Your task to perform on an android device: toggle notifications settings in the gmail app Image 0: 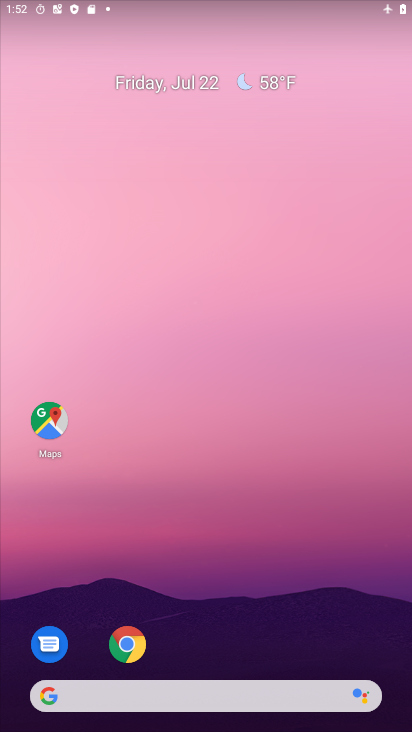
Step 0: drag from (213, 650) to (243, 434)
Your task to perform on an android device: toggle notifications settings in the gmail app Image 1: 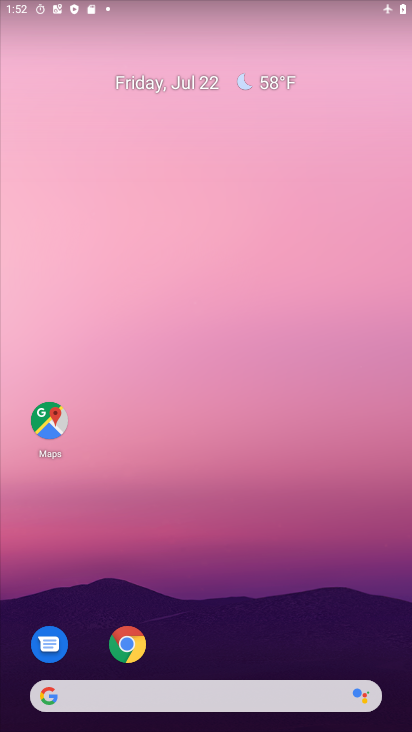
Step 1: drag from (255, 648) to (279, 291)
Your task to perform on an android device: toggle notifications settings in the gmail app Image 2: 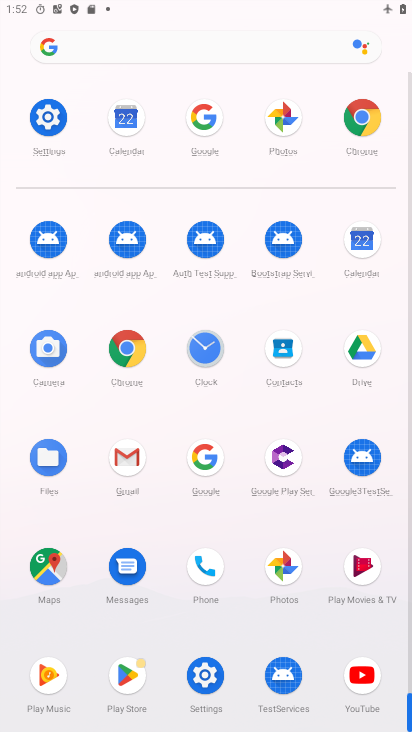
Step 2: click (138, 459)
Your task to perform on an android device: toggle notifications settings in the gmail app Image 3: 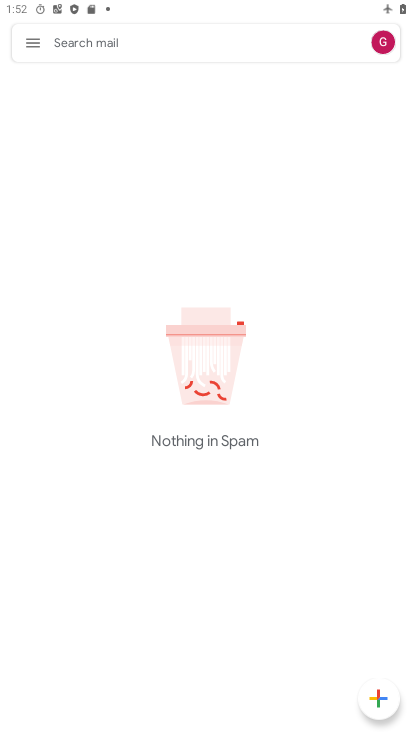
Step 3: click (24, 41)
Your task to perform on an android device: toggle notifications settings in the gmail app Image 4: 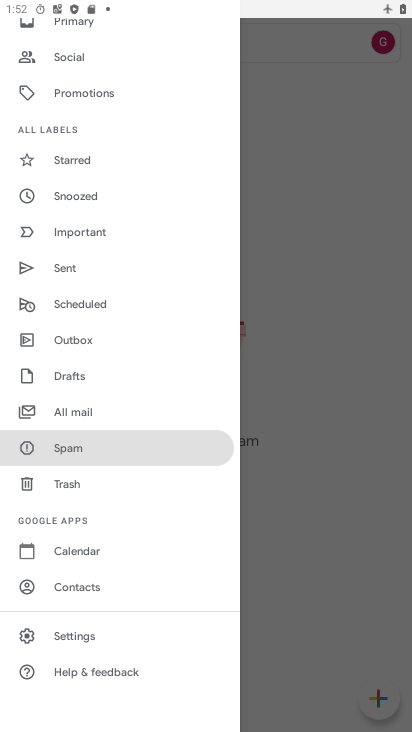
Step 4: click (93, 641)
Your task to perform on an android device: toggle notifications settings in the gmail app Image 5: 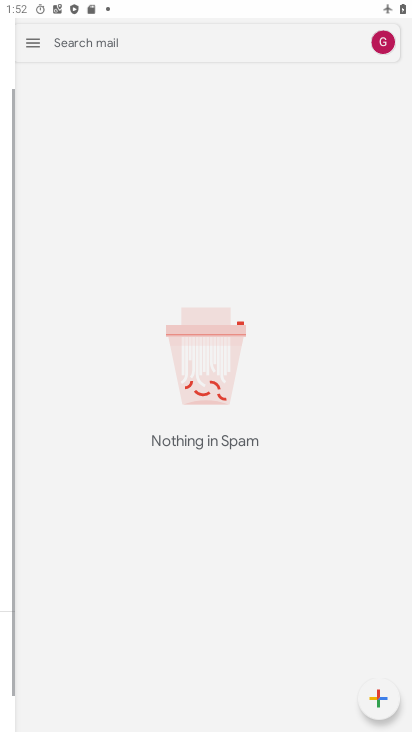
Step 5: drag from (87, 640) to (163, 92)
Your task to perform on an android device: toggle notifications settings in the gmail app Image 6: 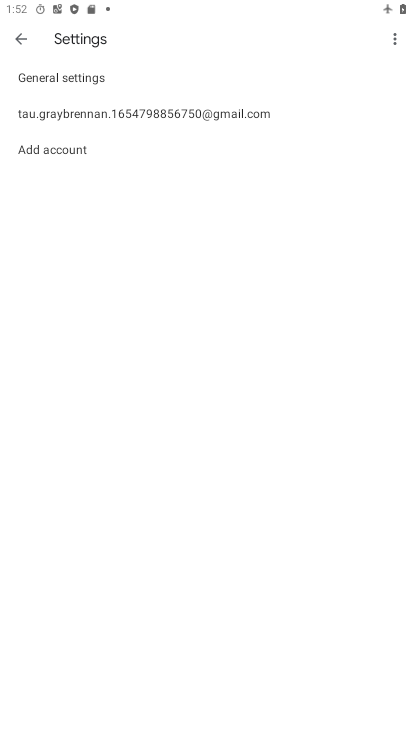
Step 6: drag from (117, 637) to (156, 320)
Your task to perform on an android device: toggle notifications settings in the gmail app Image 7: 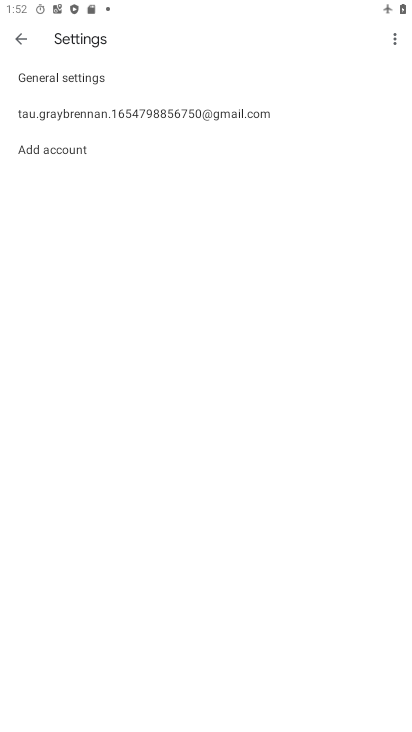
Step 7: click (107, 122)
Your task to perform on an android device: toggle notifications settings in the gmail app Image 8: 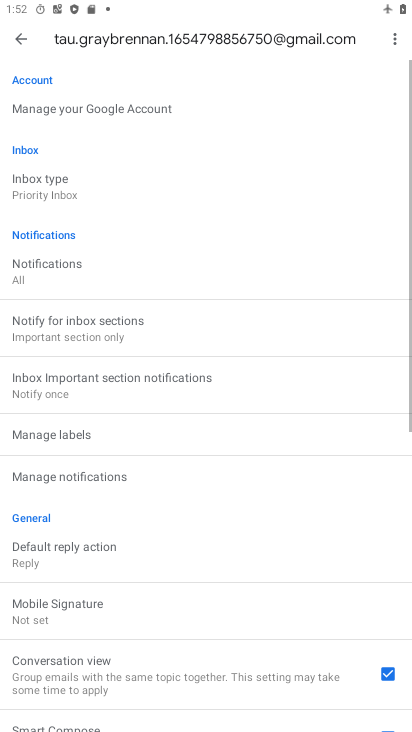
Step 8: drag from (230, 637) to (237, 252)
Your task to perform on an android device: toggle notifications settings in the gmail app Image 9: 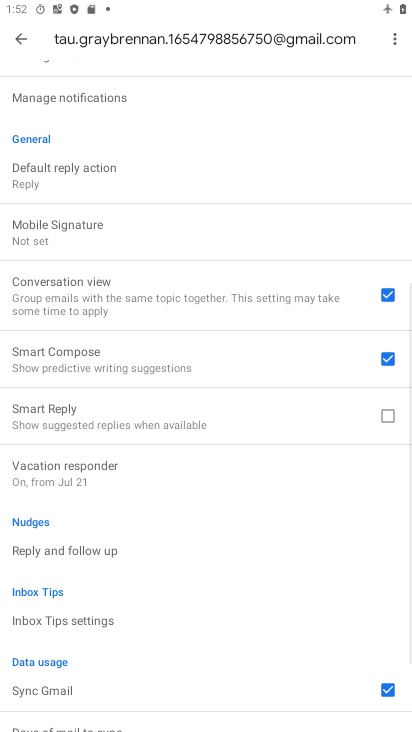
Step 9: drag from (161, 149) to (228, 566)
Your task to perform on an android device: toggle notifications settings in the gmail app Image 10: 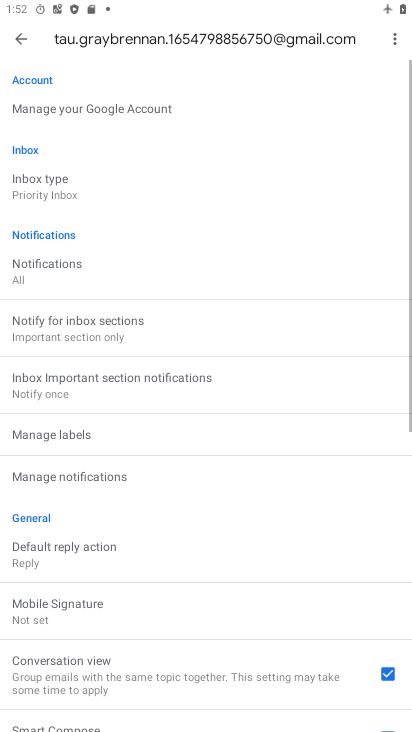
Step 10: click (122, 461)
Your task to perform on an android device: toggle notifications settings in the gmail app Image 11: 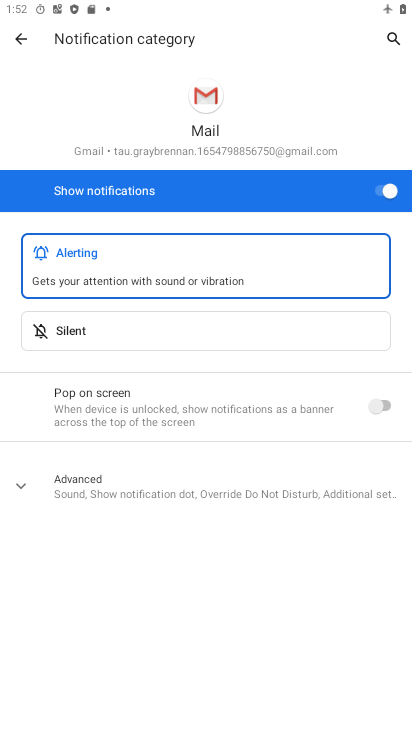
Step 11: drag from (182, 457) to (215, 298)
Your task to perform on an android device: toggle notifications settings in the gmail app Image 12: 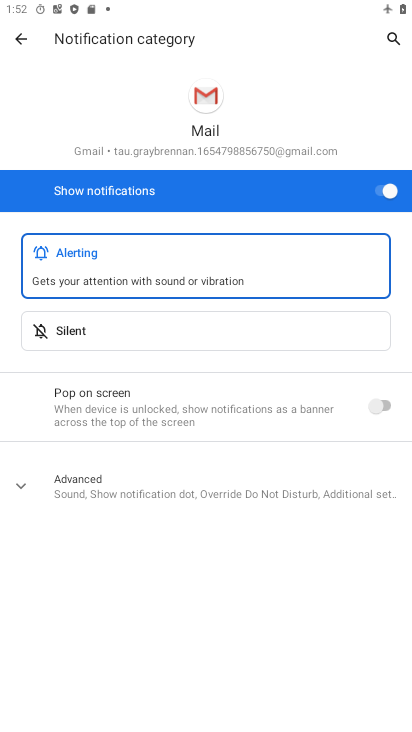
Step 12: click (376, 188)
Your task to perform on an android device: toggle notifications settings in the gmail app Image 13: 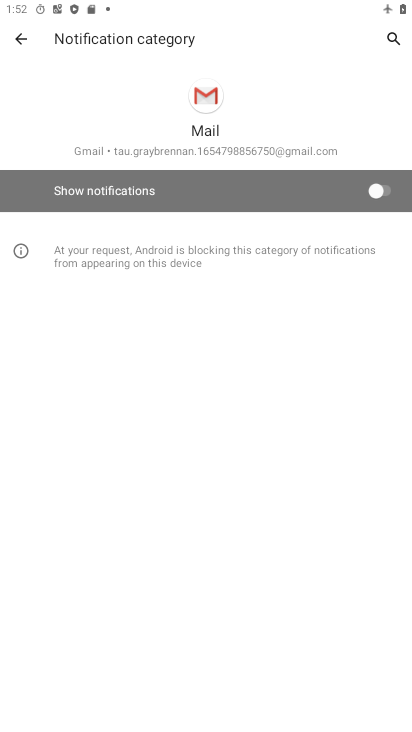
Step 13: task complete